Your task to perform on an android device: Open Google Maps Image 0: 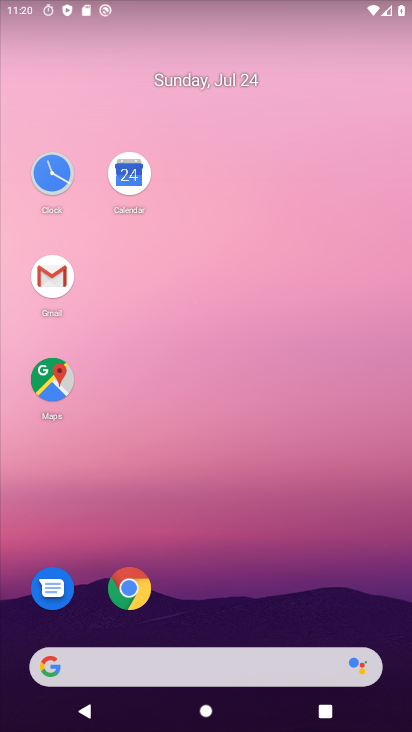
Step 0: click (60, 362)
Your task to perform on an android device: Open Google Maps Image 1: 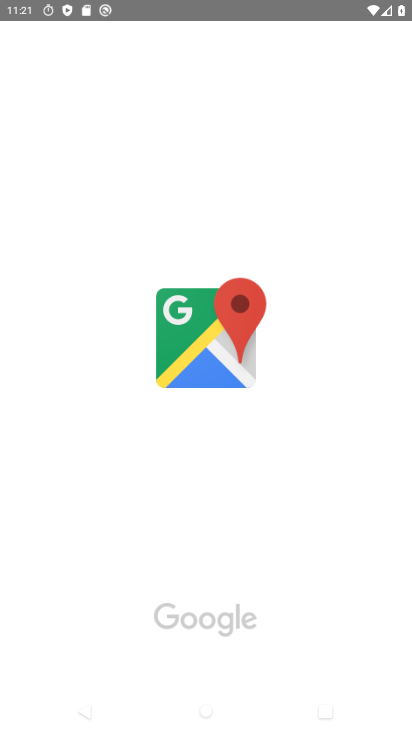
Step 1: task complete